Your task to perform on an android device: turn off sleep mode Image 0: 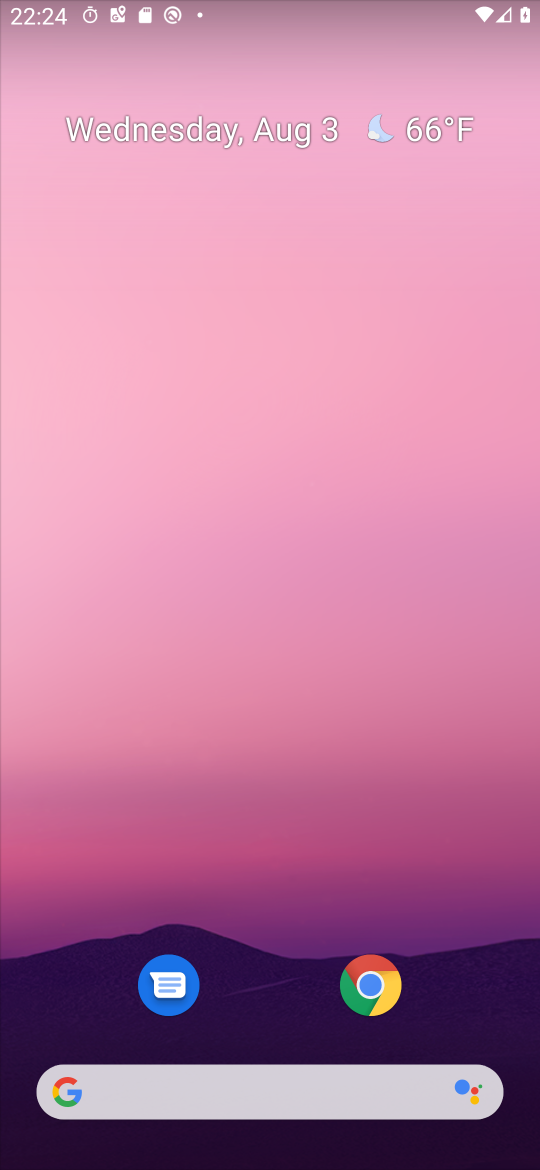
Step 0: drag from (192, 551) to (166, 424)
Your task to perform on an android device: turn off sleep mode Image 1: 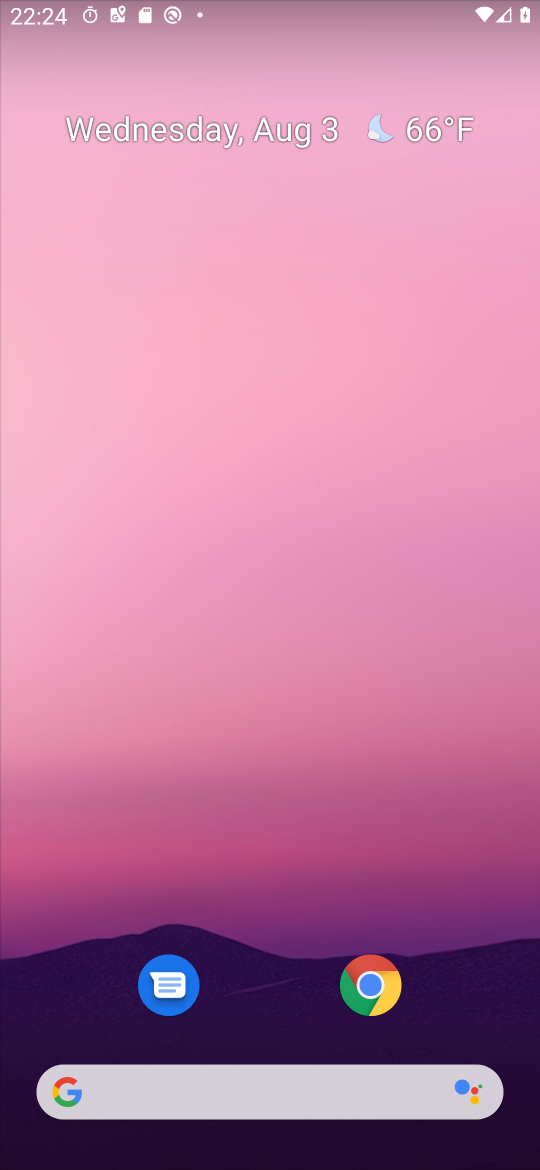
Step 1: drag from (253, 887) to (253, 256)
Your task to perform on an android device: turn off sleep mode Image 2: 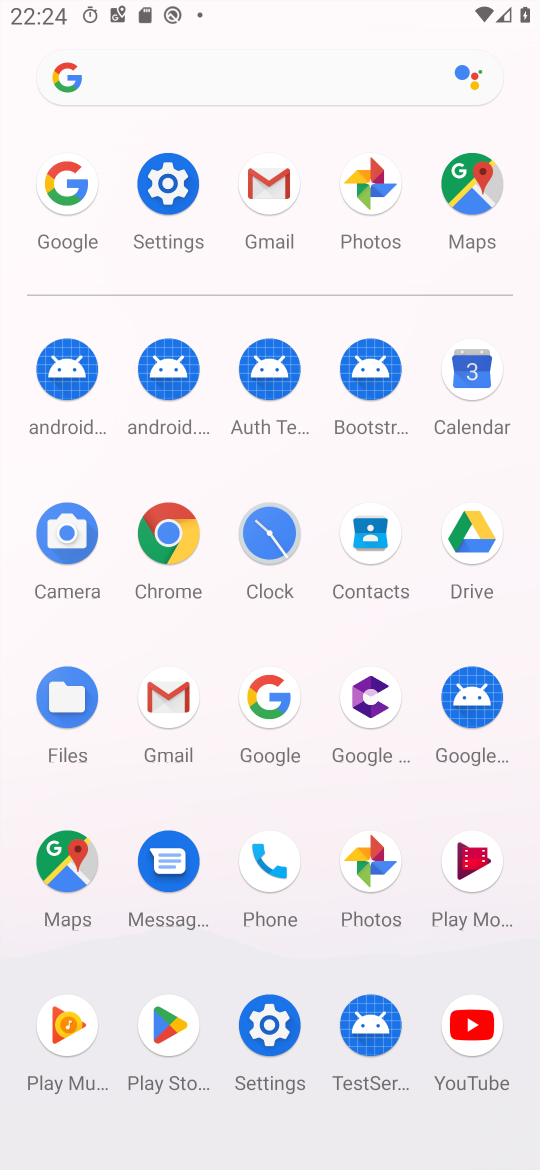
Step 2: click (161, 211)
Your task to perform on an android device: turn off sleep mode Image 3: 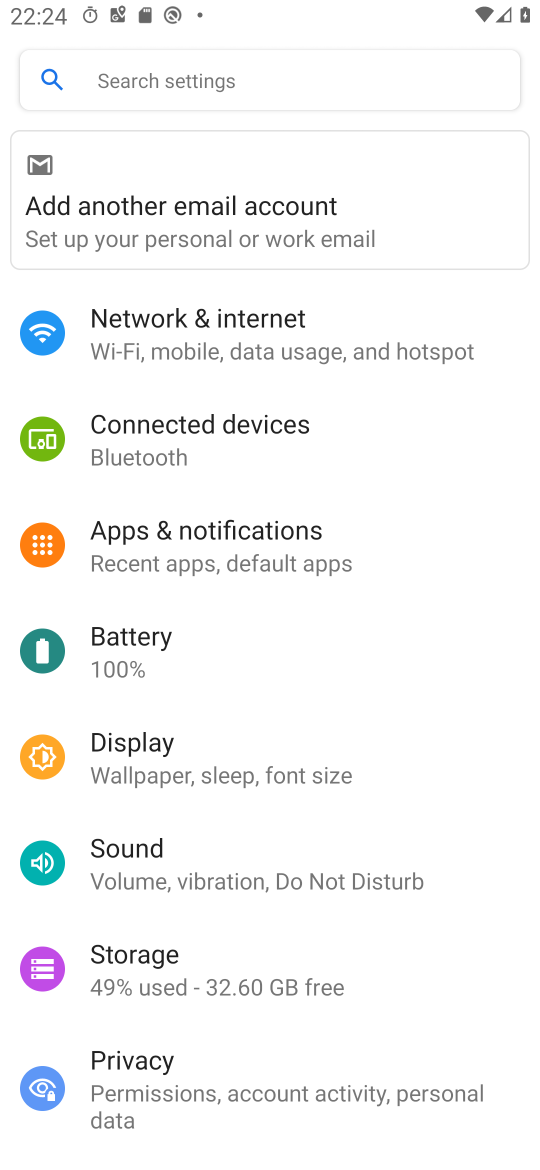
Step 3: click (216, 737)
Your task to perform on an android device: turn off sleep mode Image 4: 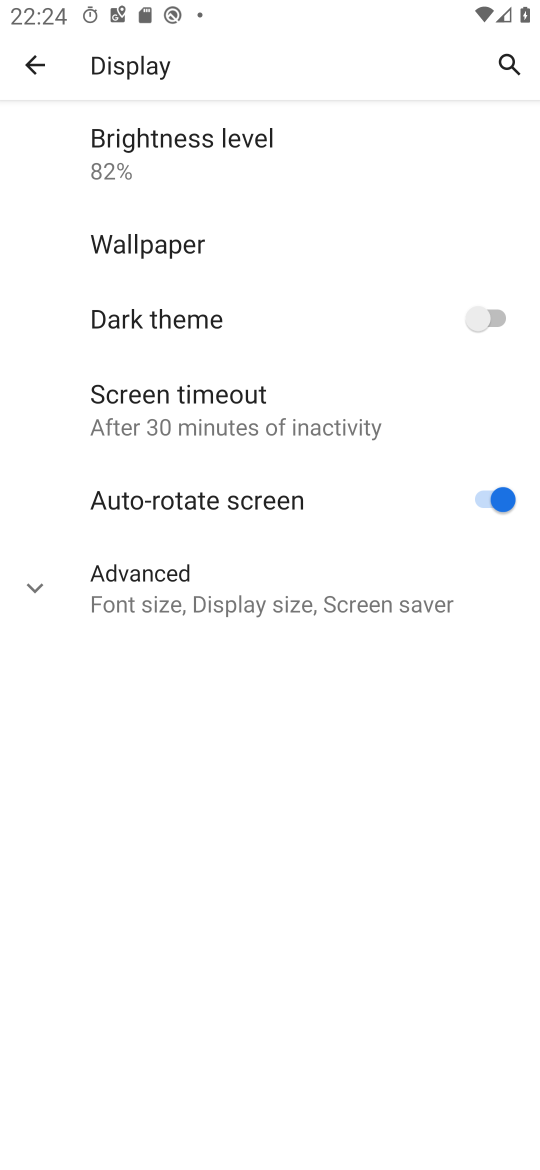
Step 4: click (204, 408)
Your task to perform on an android device: turn off sleep mode Image 5: 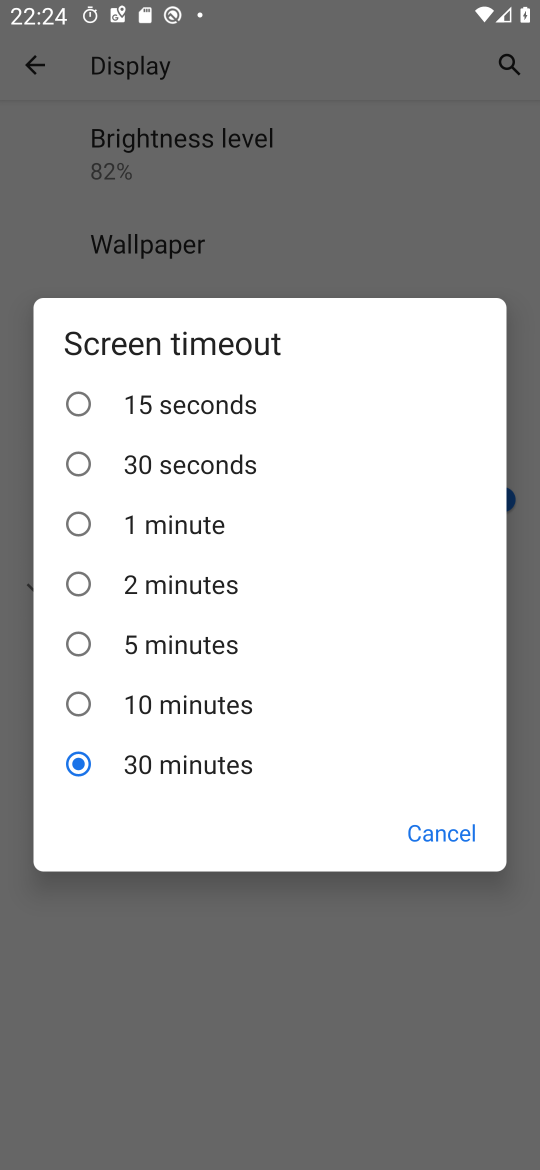
Step 5: click (204, 412)
Your task to perform on an android device: turn off sleep mode Image 6: 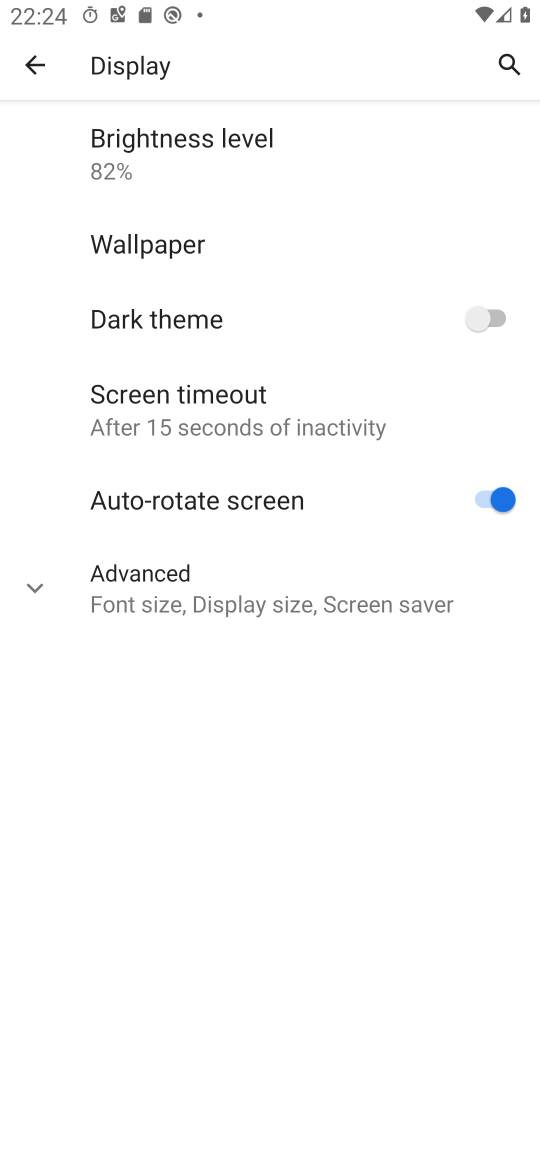
Step 6: task complete